Your task to perform on an android device: open sync settings in chrome Image 0: 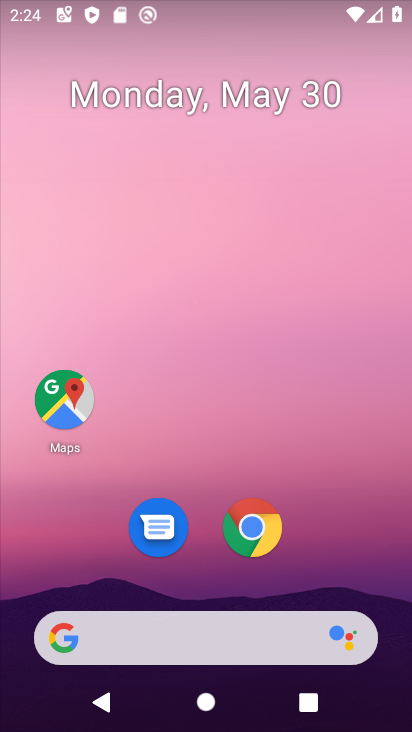
Step 0: drag from (314, 581) to (351, 119)
Your task to perform on an android device: open sync settings in chrome Image 1: 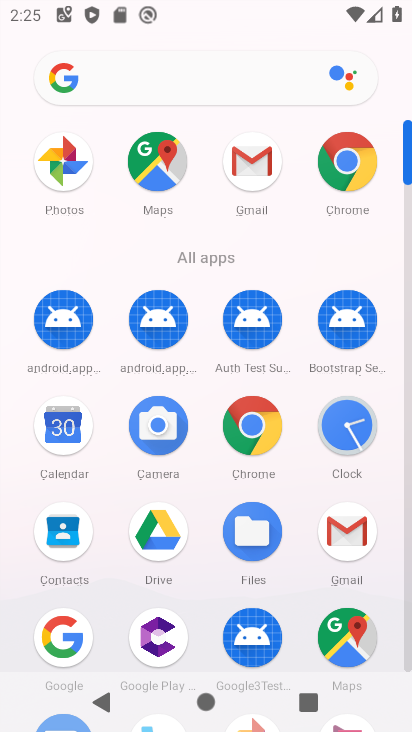
Step 1: press home button
Your task to perform on an android device: open sync settings in chrome Image 2: 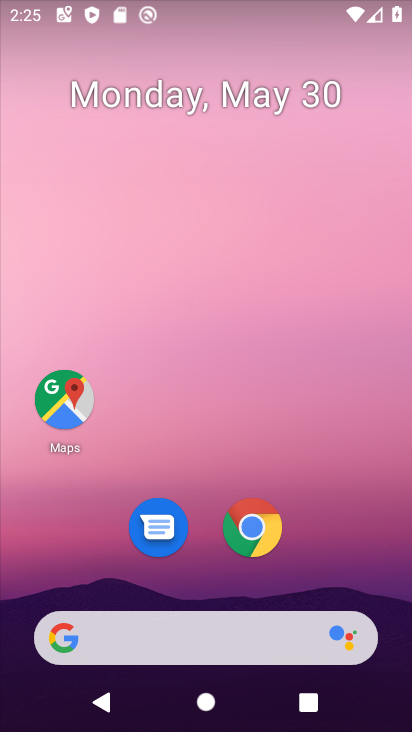
Step 2: click (261, 522)
Your task to perform on an android device: open sync settings in chrome Image 3: 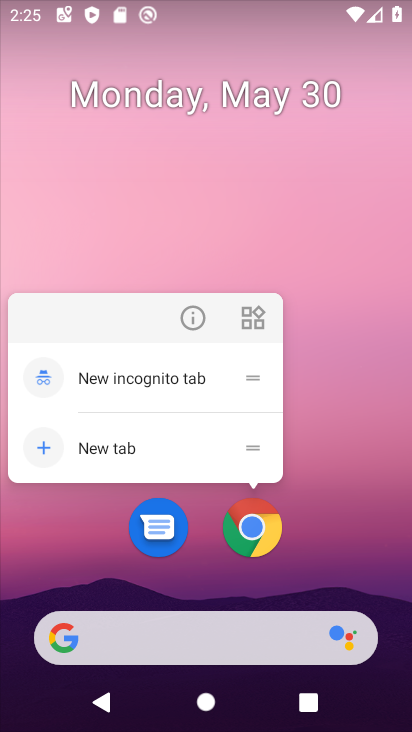
Step 3: drag from (313, 569) to (306, 122)
Your task to perform on an android device: open sync settings in chrome Image 4: 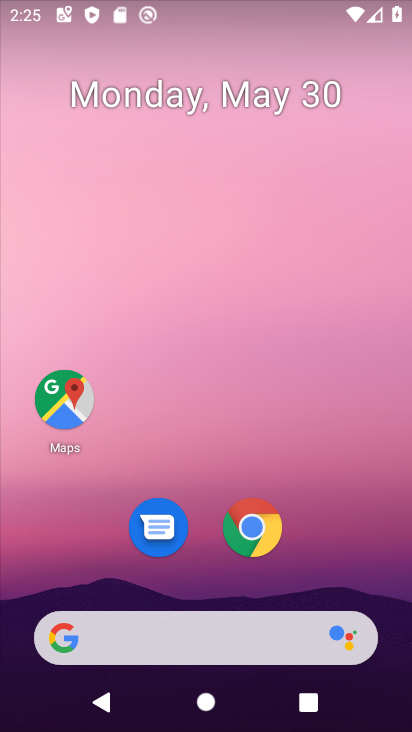
Step 4: drag from (318, 487) to (338, 167)
Your task to perform on an android device: open sync settings in chrome Image 5: 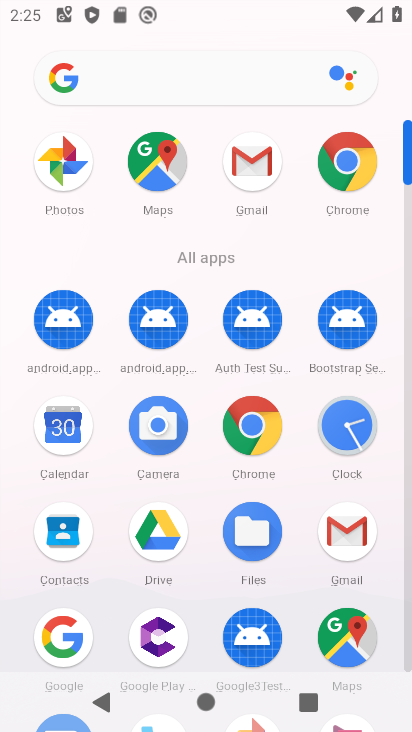
Step 5: click (249, 423)
Your task to perform on an android device: open sync settings in chrome Image 6: 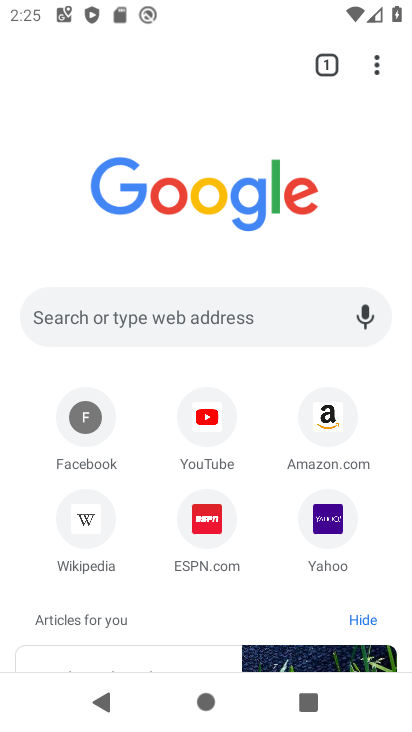
Step 6: drag from (375, 57) to (119, 550)
Your task to perform on an android device: open sync settings in chrome Image 7: 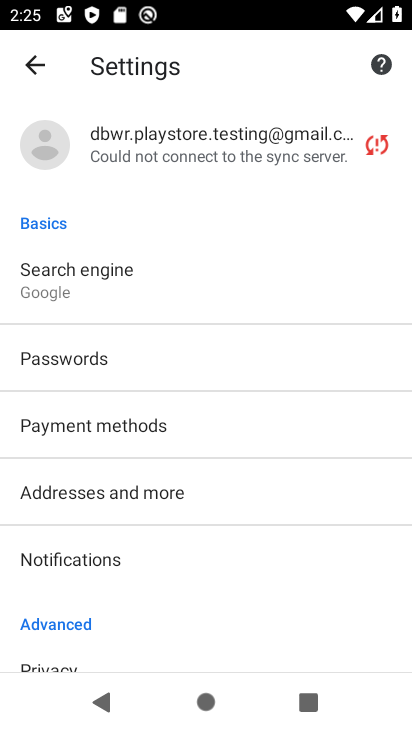
Step 7: click (57, 141)
Your task to perform on an android device: open sync settings in chrome Image 8: 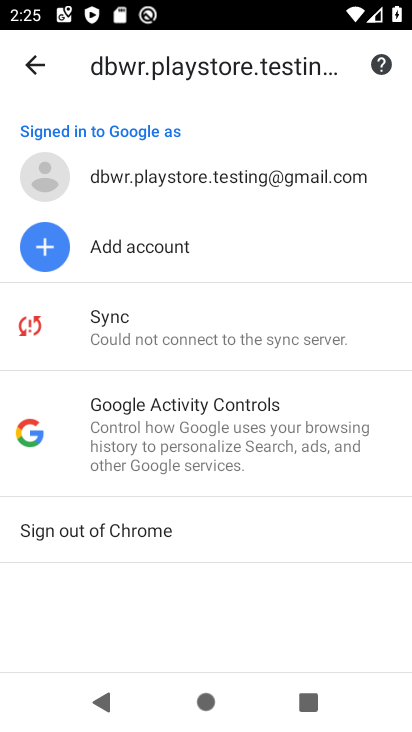
Step 8: click (125, 329)
Your task to perform on an android device: open sync settings in chrome Image 9: 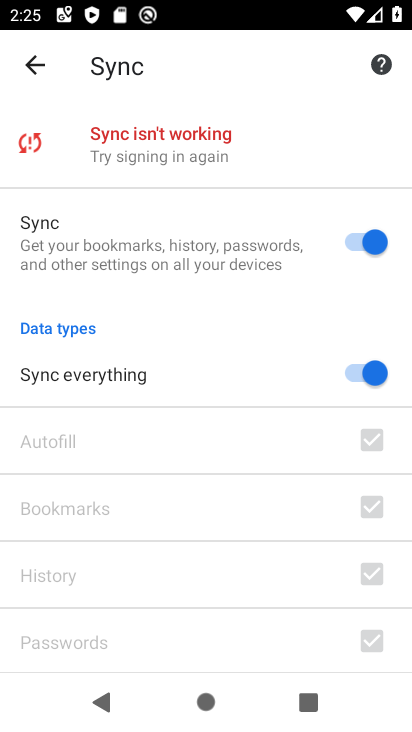
Step 9: task complete